Your task to perform on an android device: turn off location Image 0: 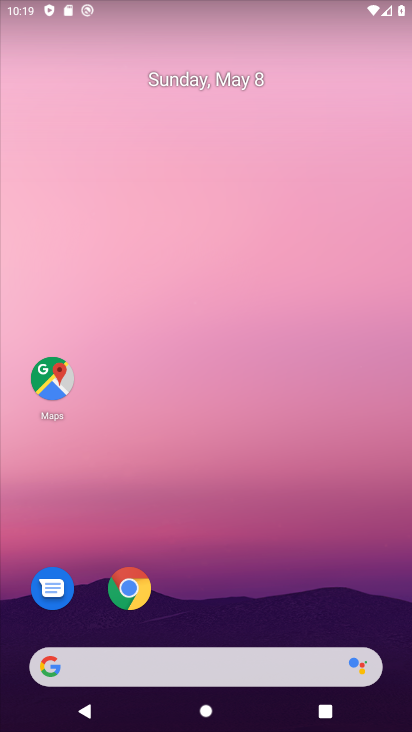
Step 0: drag from (280, 515) to (276, 82)
Your task to perform on an android device: turn off location Image 1: 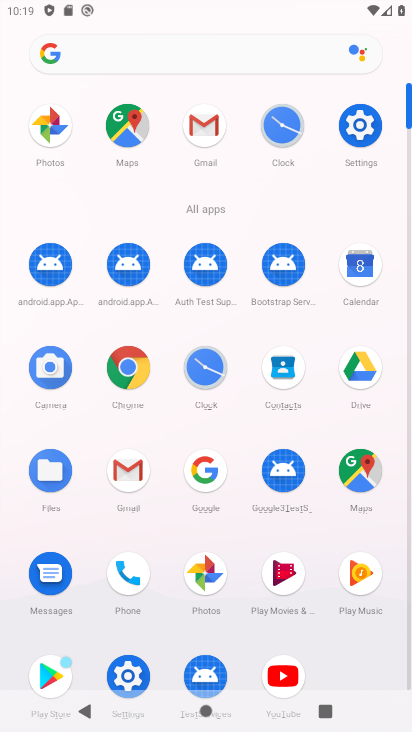
Step 1: click (363, 126)
Your task to perform on an android device: turn off location Image 2: 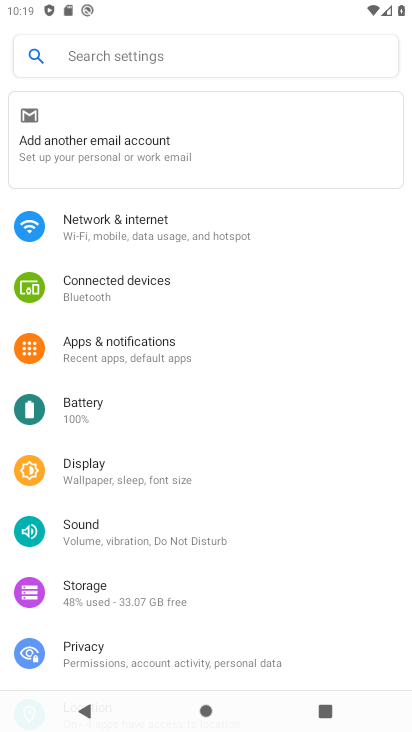
Step 2: drag from (232, 622) to (232, 245)
Your task to perform on an android device: turn off location Image 3: 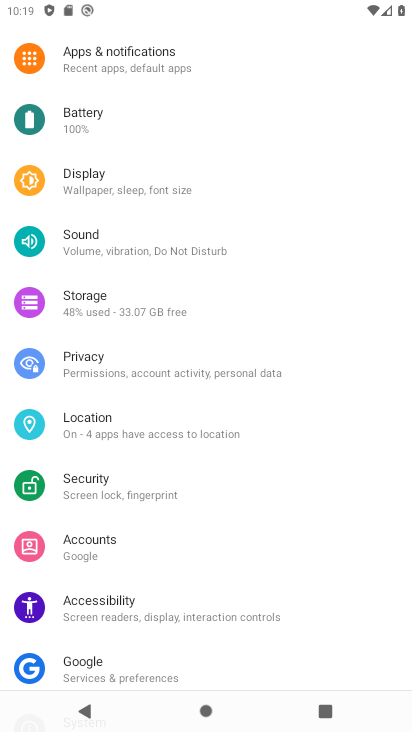
Step 3: click (101, 423)
Your task to perform on an android device: turn off location Image 4: 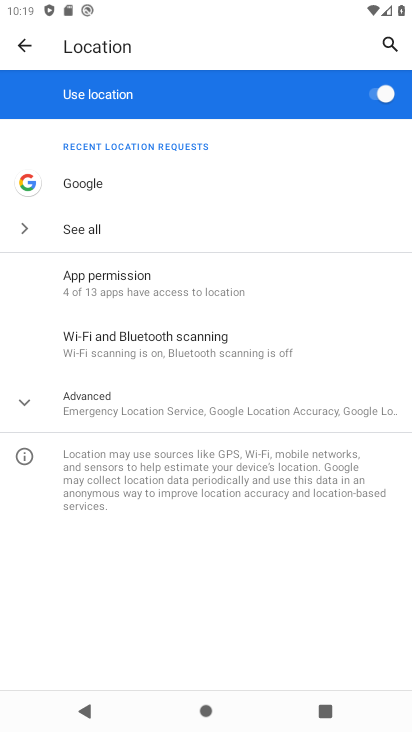
Step 4: click (384, 96)
Your task to perform on an android device: turn off location Image 5: 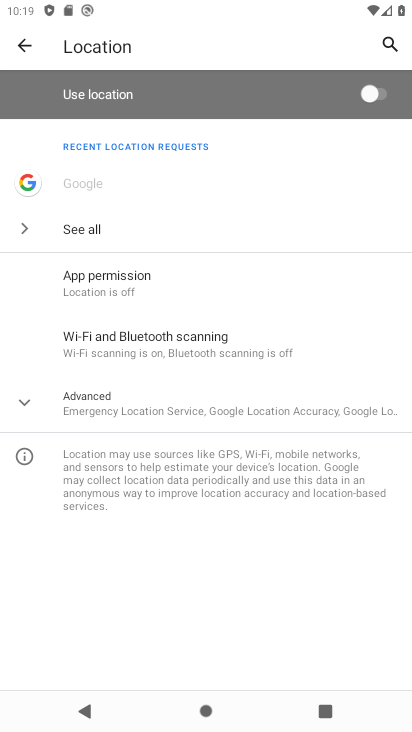
Step 5: task complete